Your task to perform on an android device: open the mobile data screen to see how much data has been used Image 0: 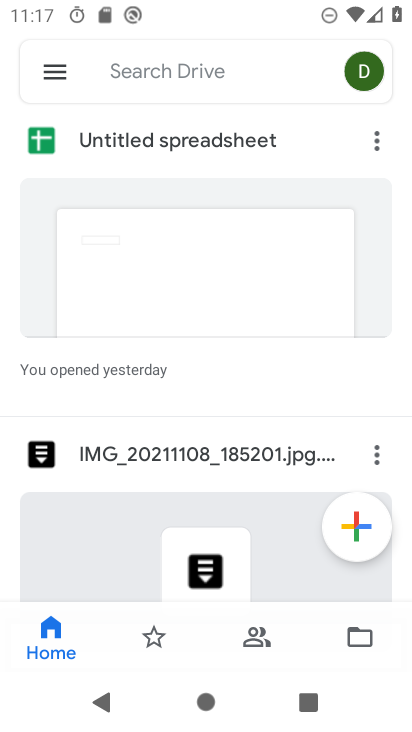
Step 0: press home button
Your task to perform on an android device: open the mobile data screen to see how much data has been used Image 1: 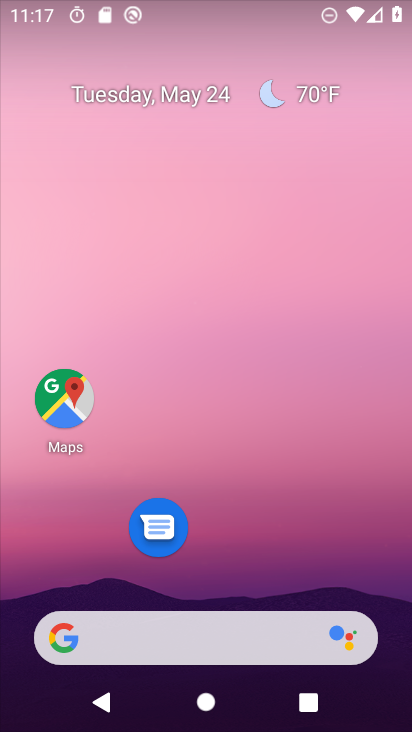
Step 1: drag from (239, 552) to (257, 94)
Your task to perform on an android device: open the mobile data screen to see how much data has been used Image 2: 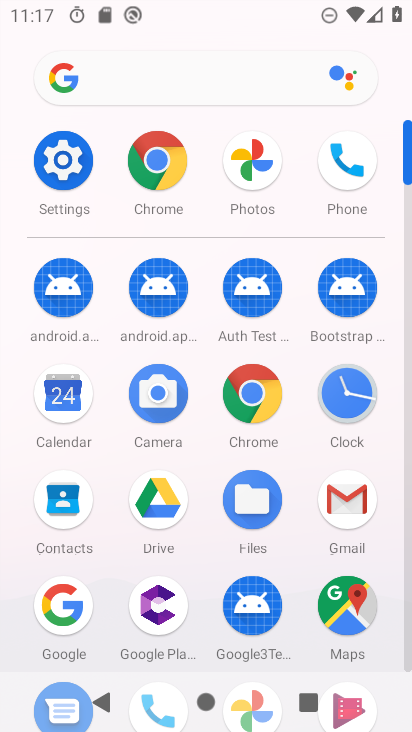
Step 2: click (63, 161)
Your task to perform on an android device: open the mobile data screen to see how much data has been used Image 3: 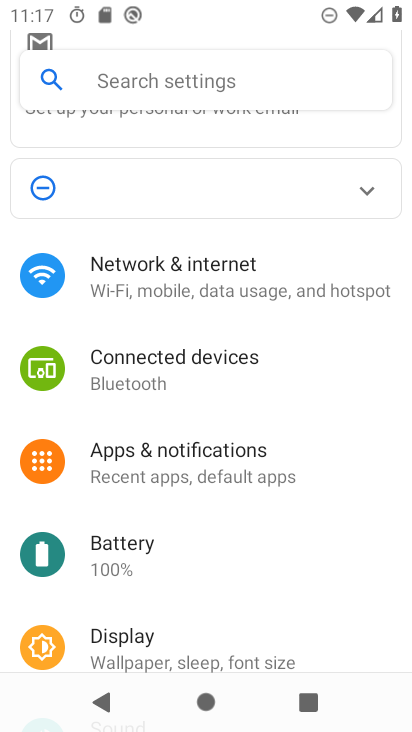
Step 3: click (247, 290)
Your task to perform on an android device: open the mobile data screen to see how much data has been used Image 4: 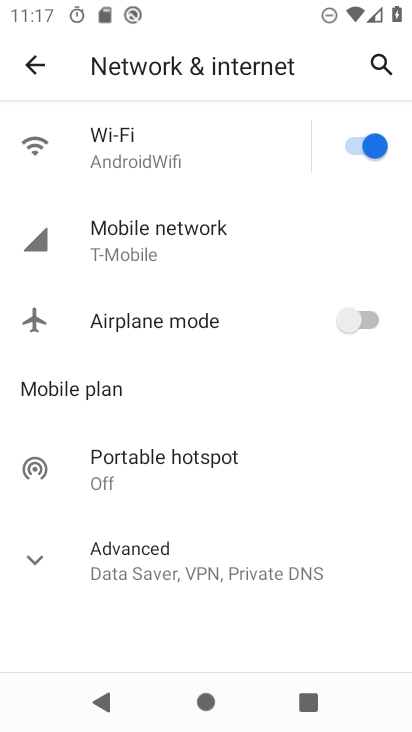
Step 4: click (193, 233)
Your task to perform on an android device: open the mobile data screen to see how much data has been used Image 5: 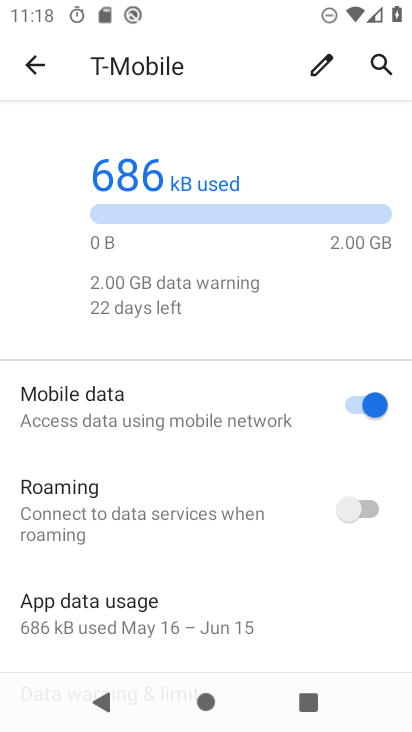
Step 5: task complete